Your task to perform on an android device: add a contact in the contacts app Image 0: 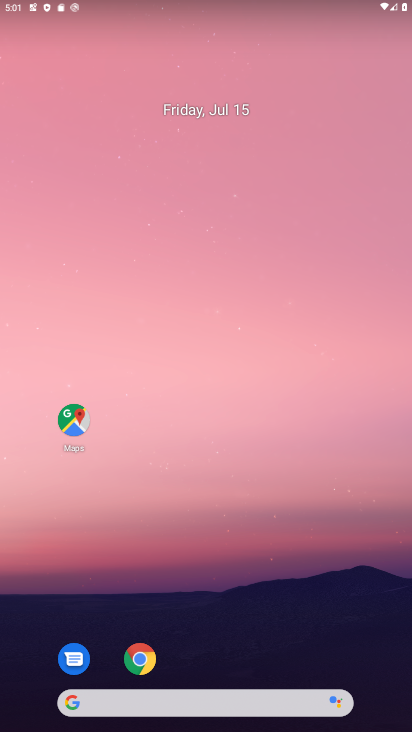
Step 0: drag from (315, 557) to (236, 5)
Your task to perform on an android device: add a contact in the contacts app Image 1: 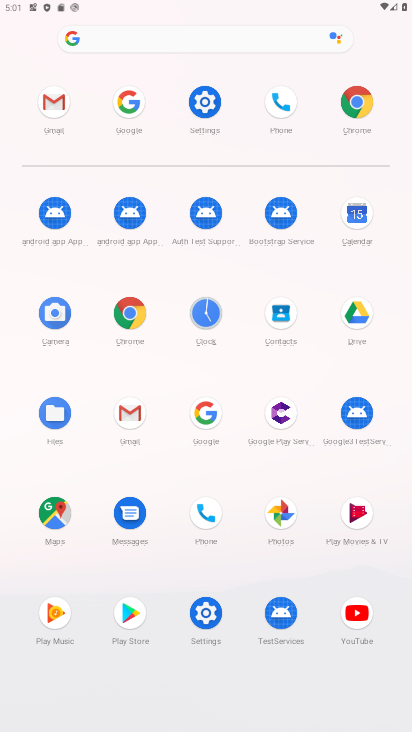
Step 1: click (265, 112)
Your task to perform on an android device: add a contact in the contacts app Image 2: 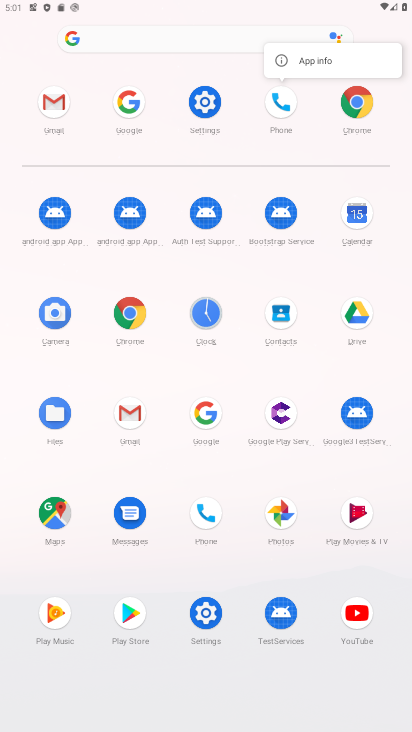
Step 2: click (270, 113)
Your task to perform on an android device: add a contact in the contacts app Image 3: 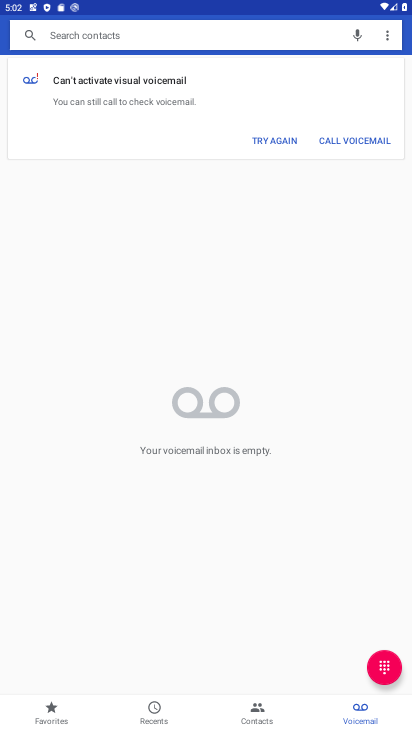
Step 3: click (260, 703)
Your task to perform on an android device: add a contact in the contacts app Image 4: 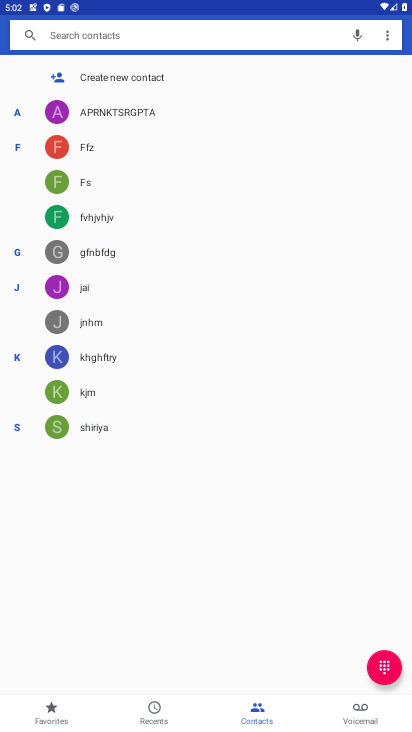
Step 4: click (64, 81)
Your task to perform on an android device: add a contact in the contacts app Image 5: 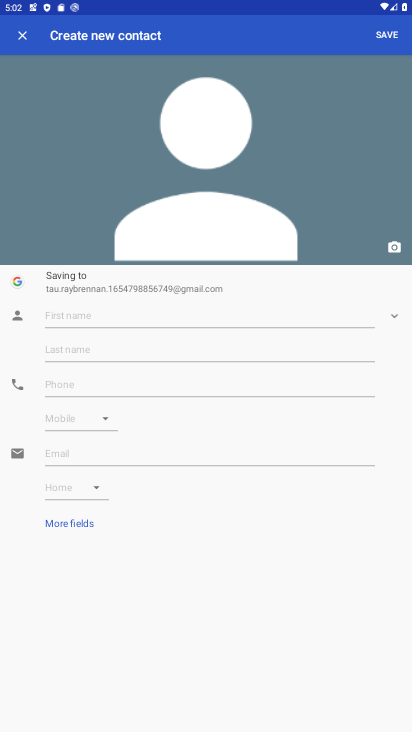
Step 5: click (133, 314)
Your task to perform on an android device: add a contact in the contacts app Image 6: 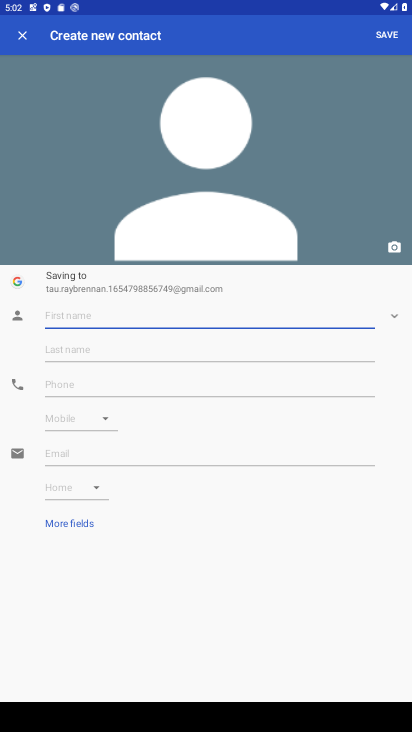
Step 6: type "sagggg"
Your task to perform on an android device: add a contact in the contacts app Image 7: 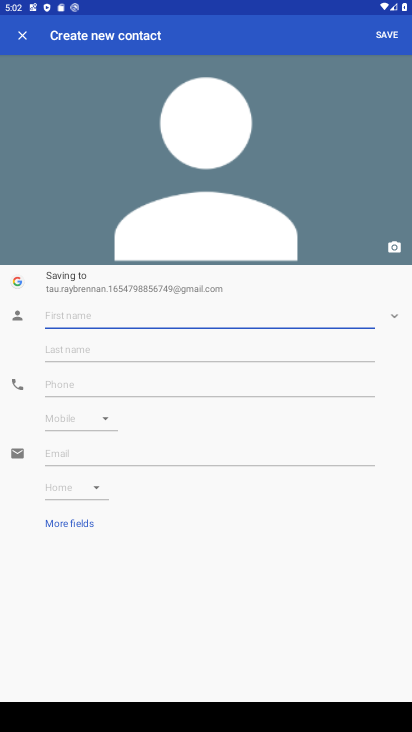
Step 7: click (119, 390)
Your task to perform on an android device: add a contact in the contacts app Image 8: 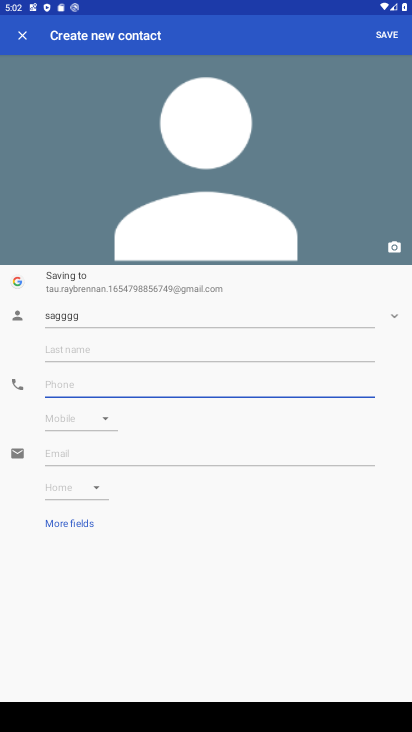
Step 8: type "45678987654"
Your task to perform on an android device: add a contact in the contacts app Image 9: 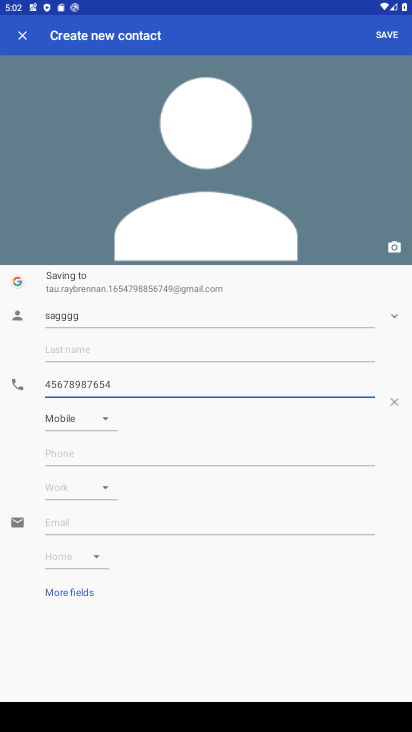
Step 9: click (383, 30)
Your task to perform on an android device: add a contact in the contacts app Image 10: 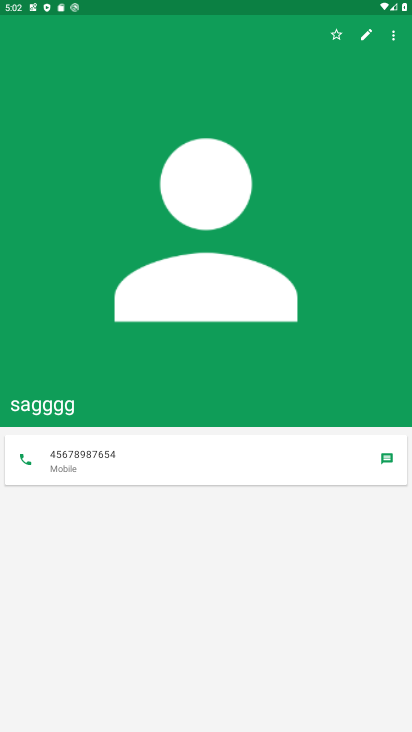
Step 10: task complete